Your task to perform on an android device: open device folders in google photos Image 0: 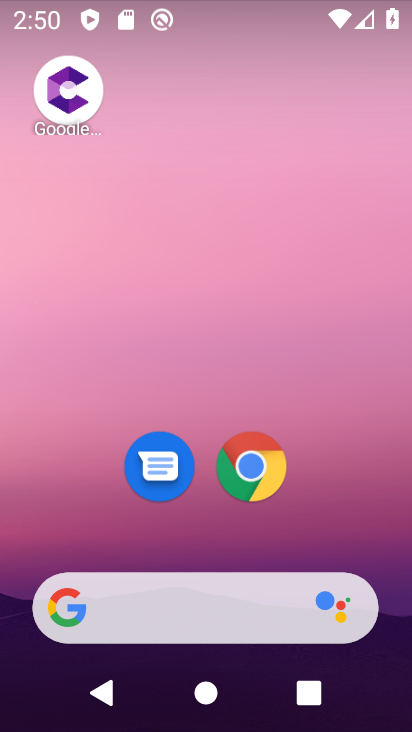
Step 0: drag from (249, 577) to (263, 158)
Your task to perform on an android device: open device folders in google photos Image 1: 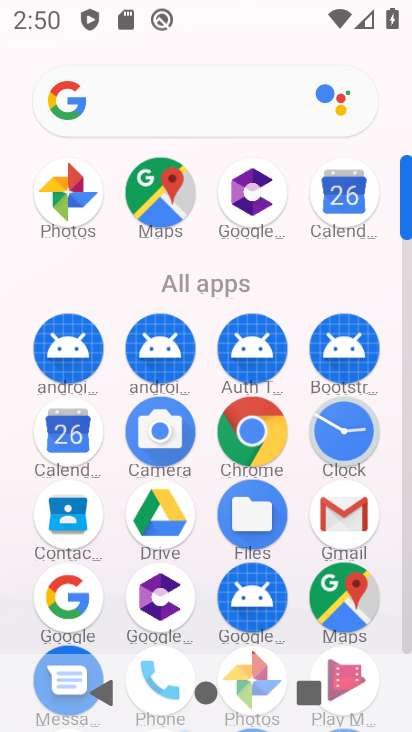
Step 1: click (62, 207)
Your task to perform on an android device: open device folders in google photos Image 2: 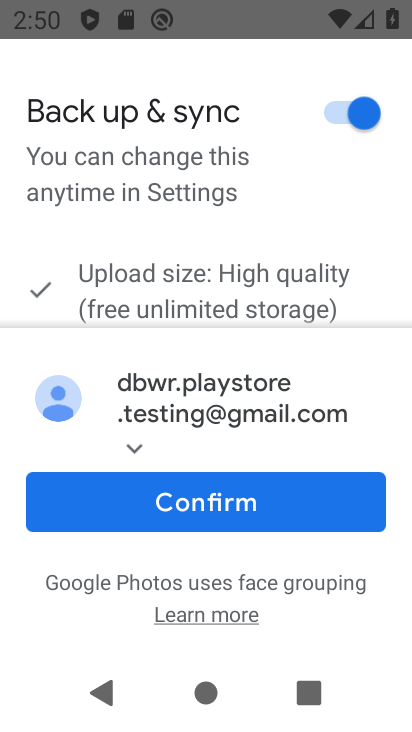
Step 2: click (189, 498)
Your task to perform on an android device: open device folders in google photos Image 3: 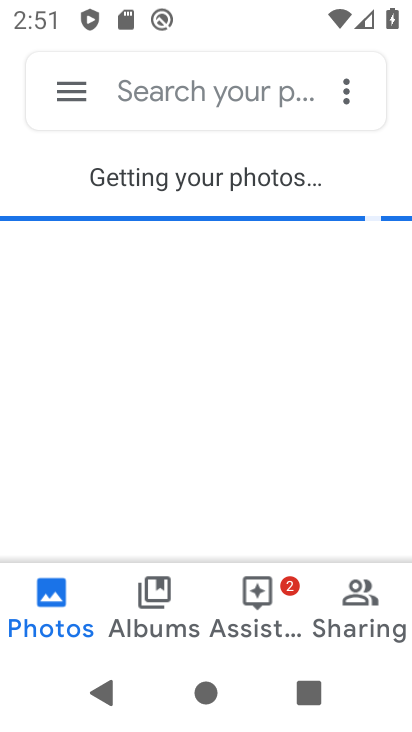
Step 3: task complete